Your task to perform on an android device: What's the weather today? Image 0: 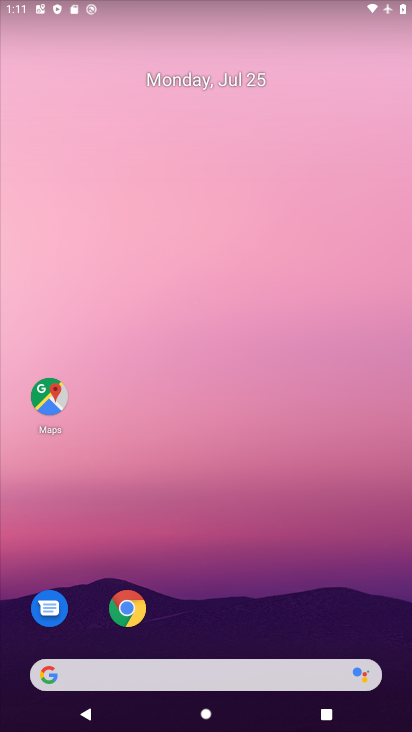
Step 0: press home button
Your task to perform on an android device: What's the weather today? Image 1: 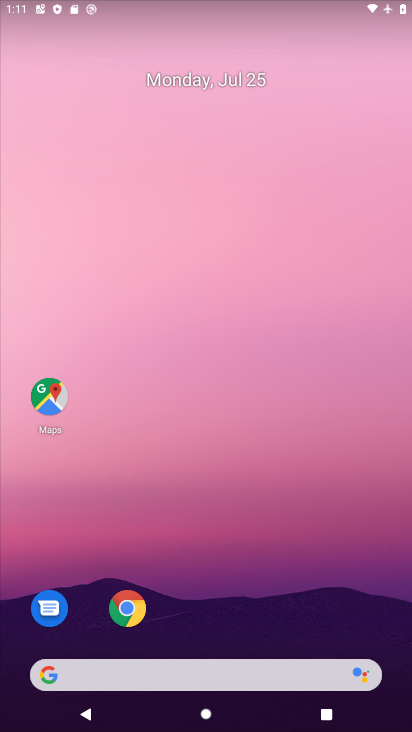
Step 1: drag from (253, 588) to (350, 158)
Your task to perform on an android device: What's the weather today? Image 2: 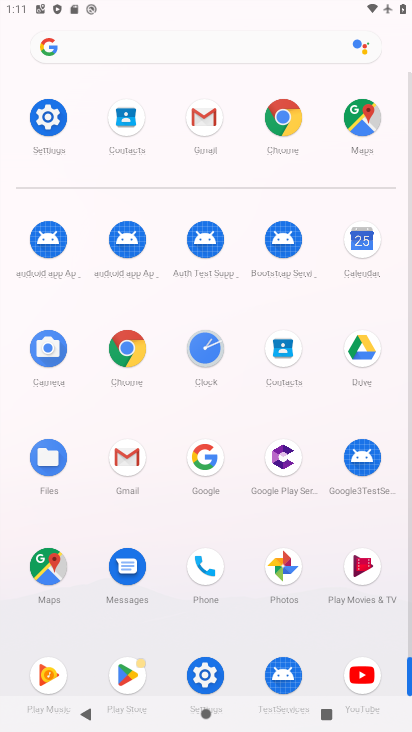
Step 2: click (219, 469)
Your task to perform on an android device: What's the weather today? Image 3: 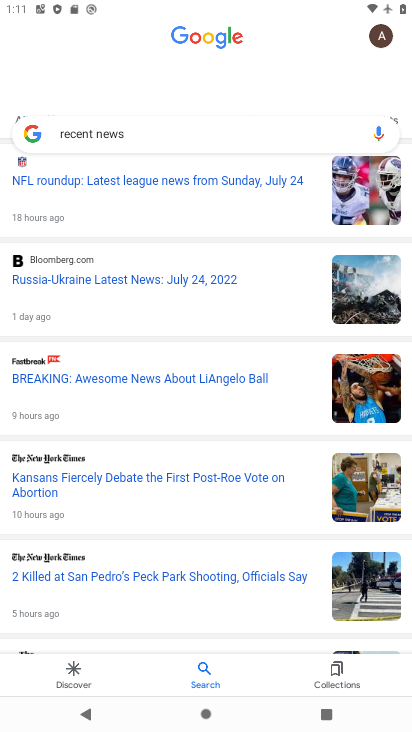
Step 3: click (211, 472)
Your task to perform on an android device: What's the weather today? Image 4: 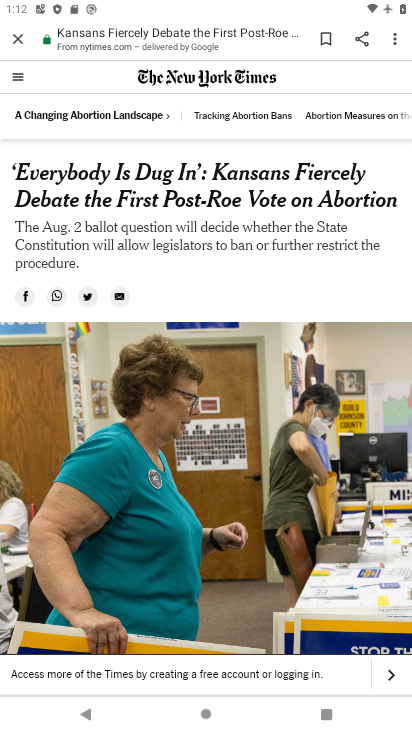
Step 4: click (23, 35)
Your task to perform on an android device: What's the weather today? Image 5: 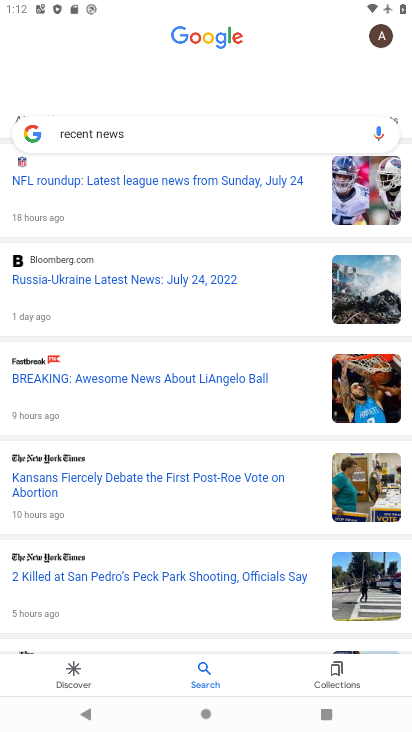
Step 5: click (246, 135)
Your task to perform on an android device: What's the weather today? Image 6: 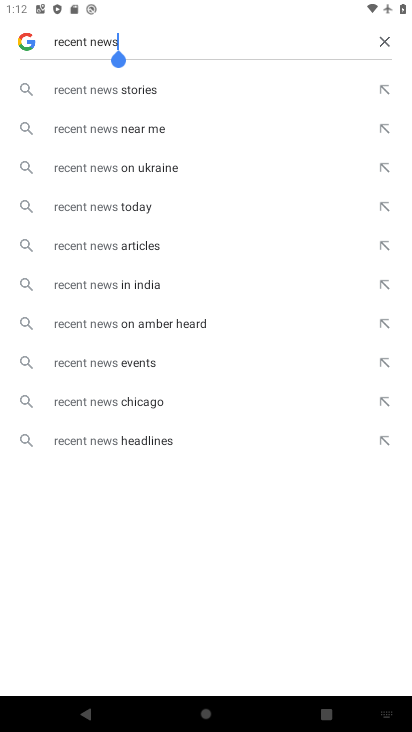
Step 6: click (387, 44)
Your task to perform on an android device: What's the weather today? Image 7: 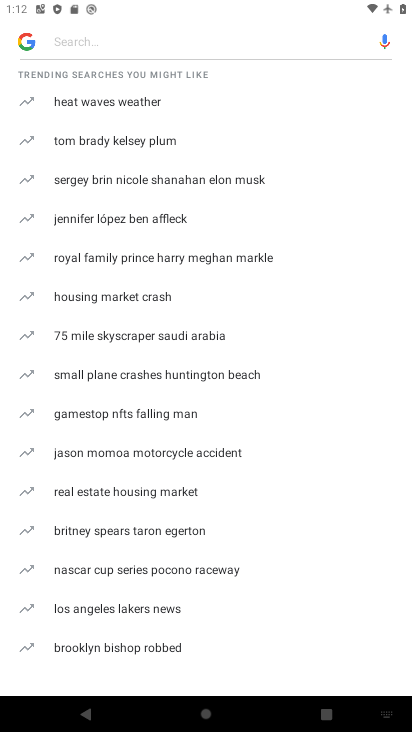
Step 7: type "weather"
Your task to perform on an android device: What's the weather today? Image 8: 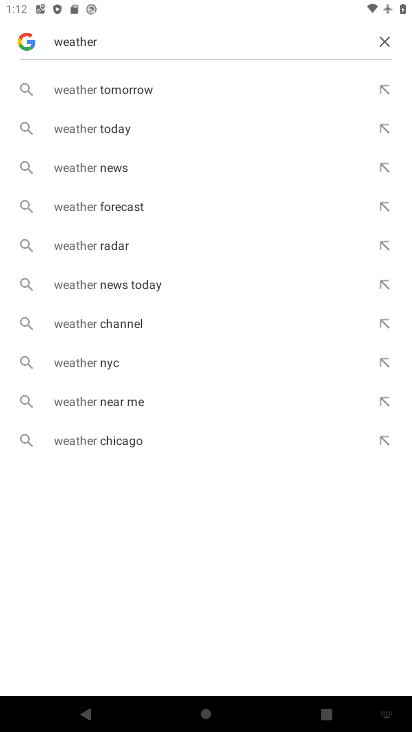
Step 8: click (117, 125)
Your task to perform on an android device: What's the weather today? Image 9: 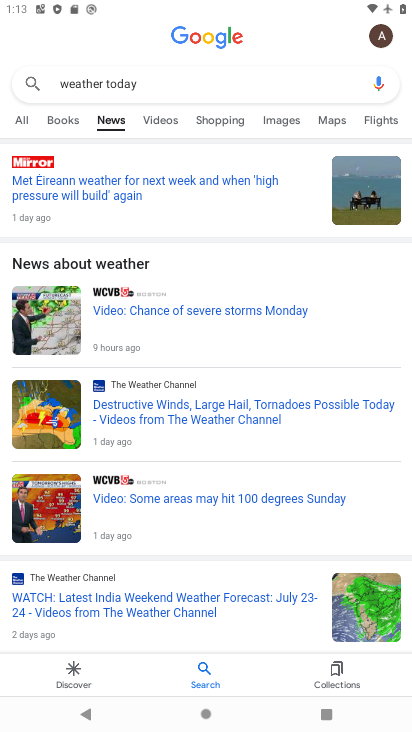
Step 9: click (17, 127)
Your task to perform on an android device: What's the weather today? Image 10: 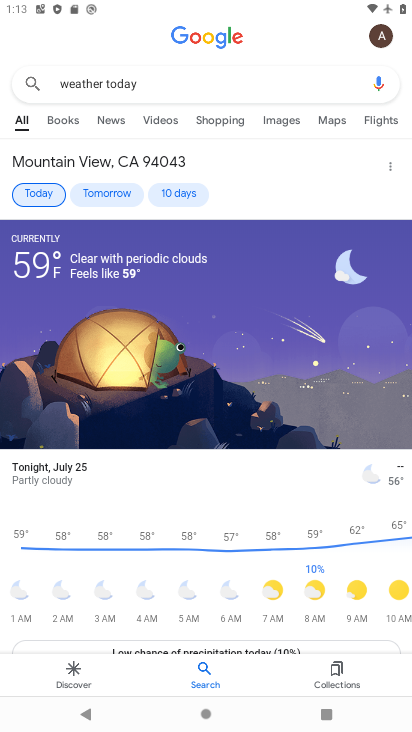
Step 10: task complete